Your task to perform on an android device: Go to Google maps Image 0: 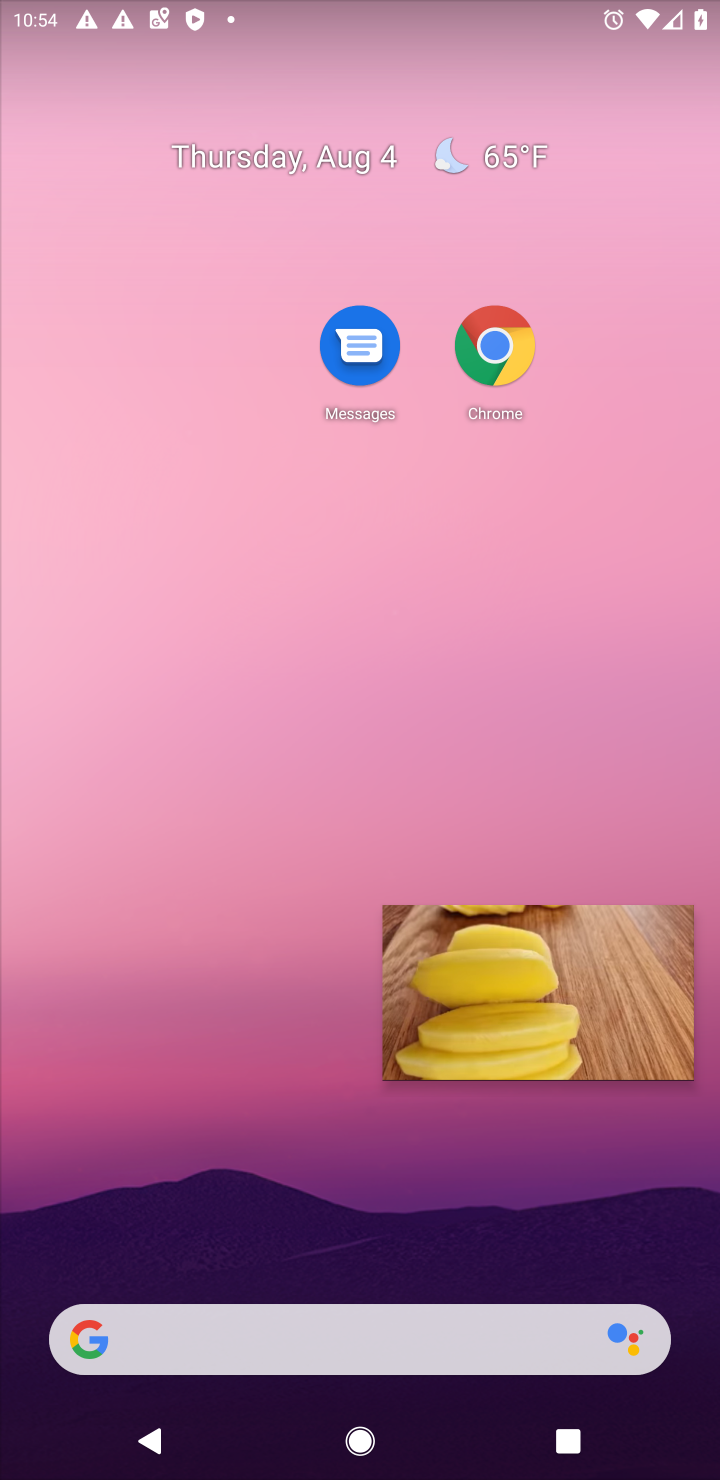
Step 0: drag from (254, 509) to (288, 89)
Your task to perform on an android device: Go to Google maps Image 1: 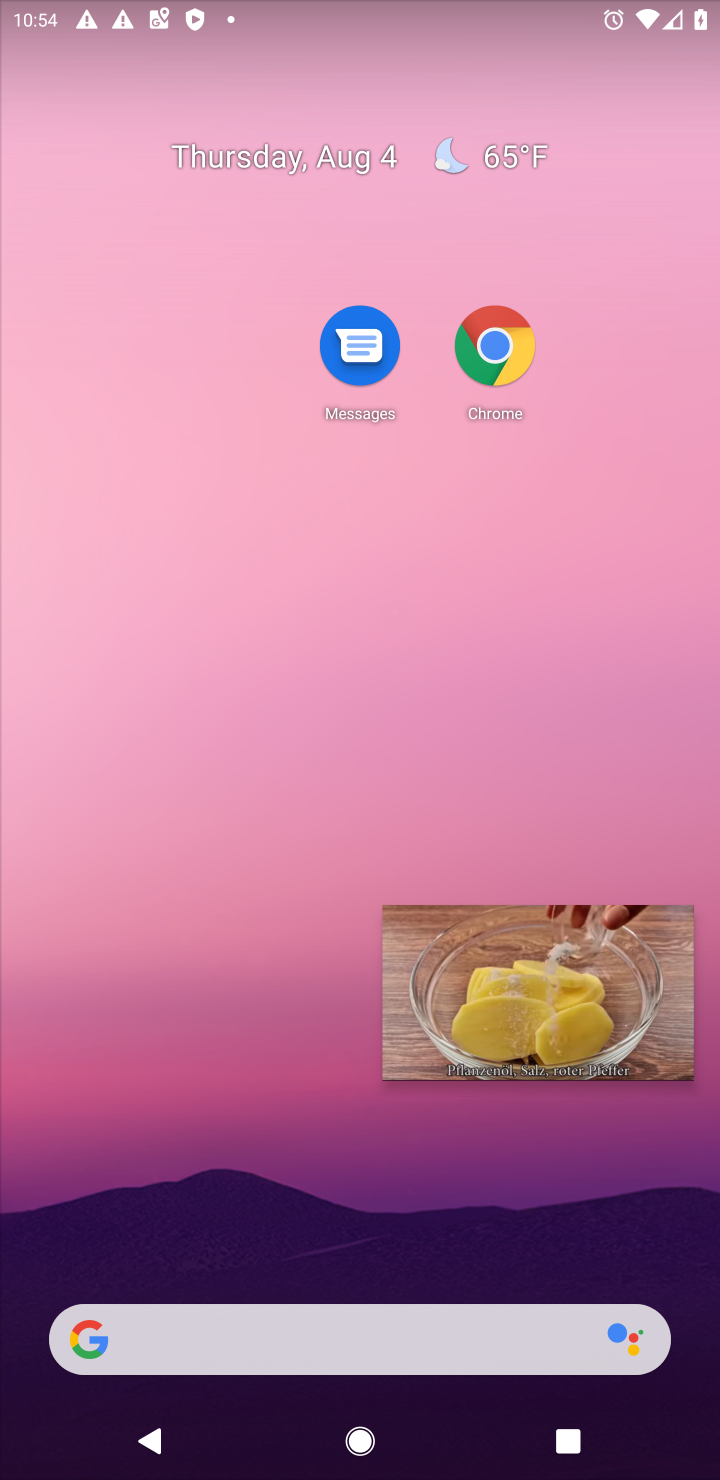
Step 1: drag from (362, 779) to (364, 100)
Your task to perform on an android device: Go to Google maps Image 2: 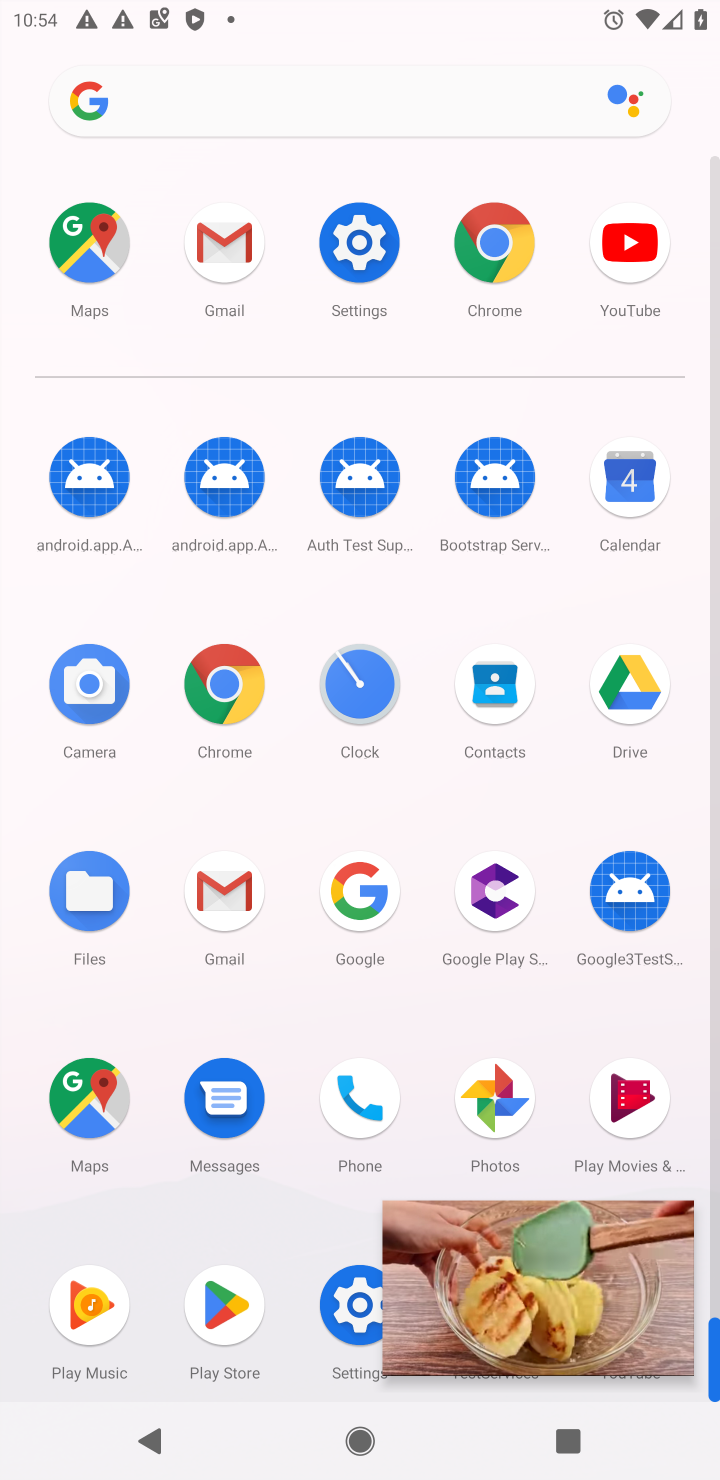
Step 2: click (102, 1106)
Your task to perform on an android device: Go to Google maps Image 3: 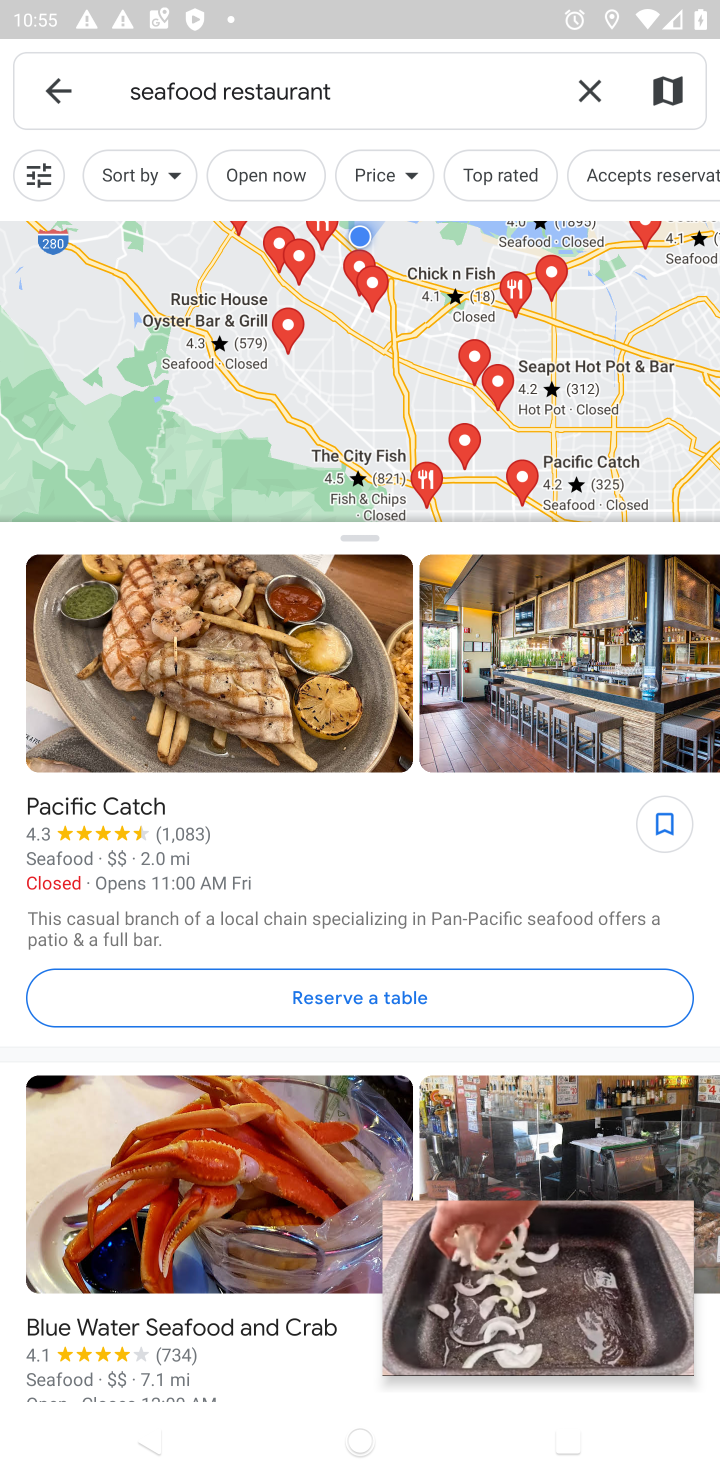
Step 3: task complete